Your task to perform on an android device: see tabs open on other devices in the chrome app Image 0: 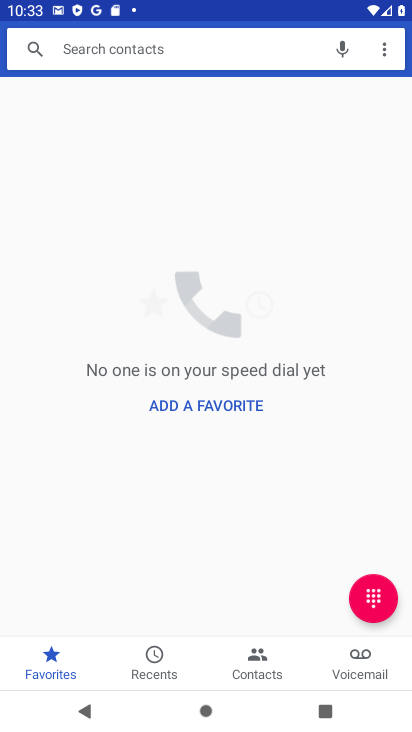
Step 0: press home button
Your task to perform on an android device: see tabs open on other devices in the chrome app Image 1: 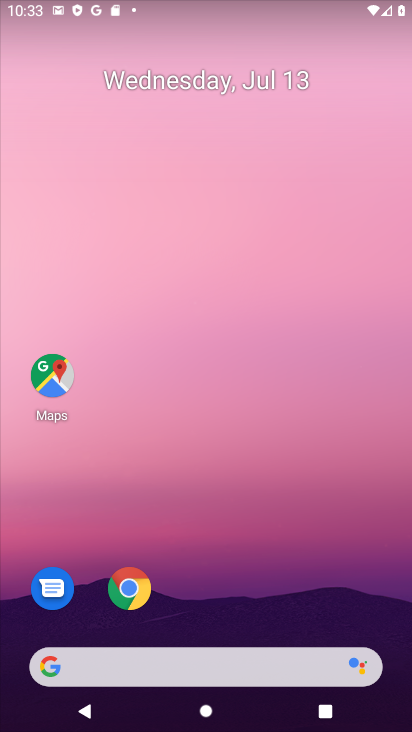
Step 1: click (139, 588)
Your task to perform on an android device: see tabs open on other devices in the chrome app Image 2: 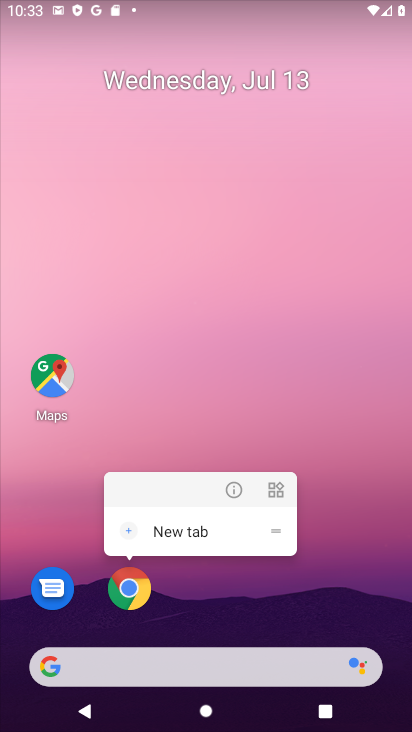
Step 2: click (140, 591)
Your task to perform on an android device: see tabs open on other devices in the chrome app Image 3: 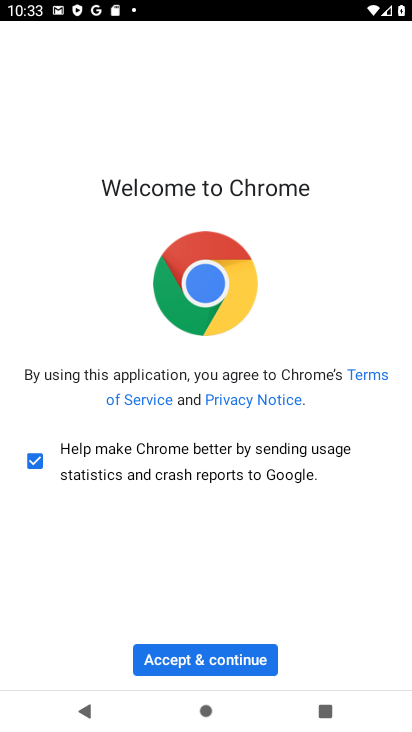
Step 3: click (245, 654)
Your task to perform on an android device: see tabs open on other devices in the chrome app Image 4: 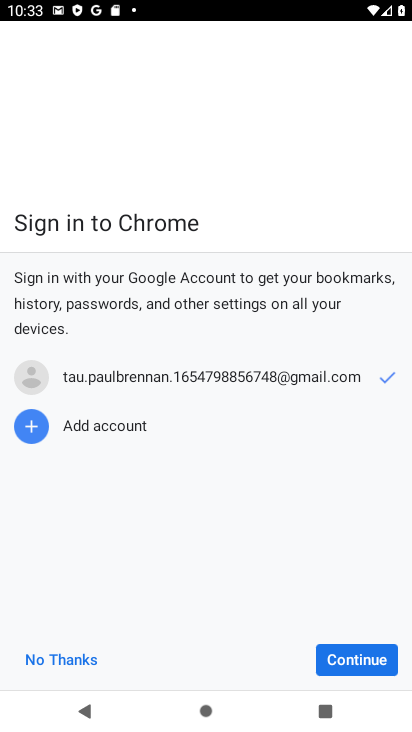
Step 4: click (367, 656)
Your task to perform on an android device: see tabs open on other devices in the chrome app Image 5: 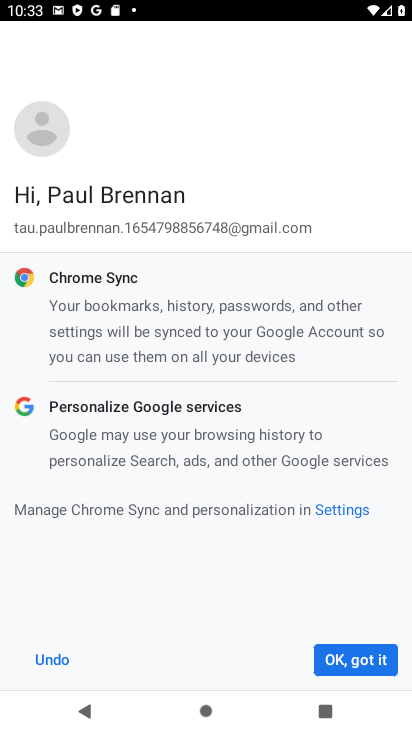
Step 5: click (367, 656)
Your task to perform on an android device: see tabs open on other devices in the chrome app Image 6: 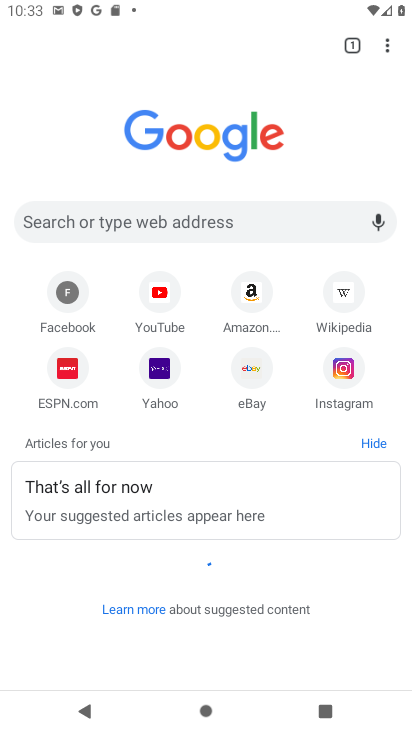
Step 6: click (388, 49)
Your task to perform on an android device: see tabs open on other devices in the chrome app Image 7: 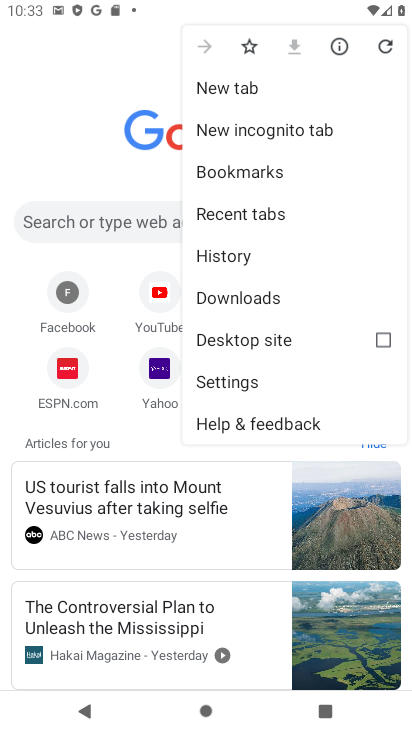
Step 7: click (244, 214)
Your task to perform on an android device: see tabs open on other devices in the chrome app Image 8: 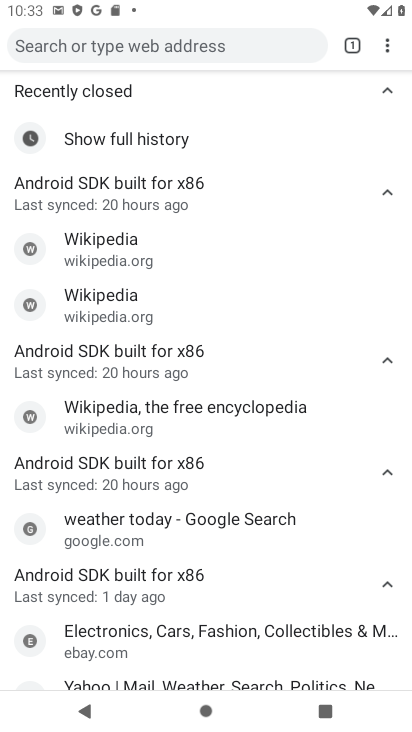
Step 8: task complete